Your task to perform on an android device: When is my next appointment? Image 0: 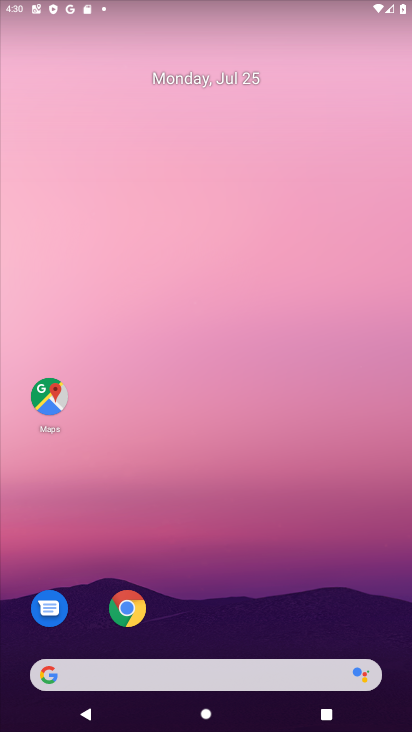
Step 0: drag from (217, 626) to (267, 72)
Your task to perform on an android device: When is my next appointment? Image 1: 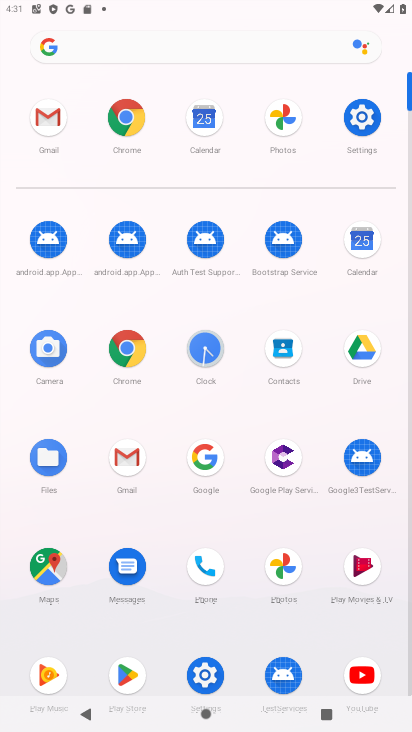
Step 1: click (360, 240)
Your task to perform on an android device: When is my next appointment? Image 2: 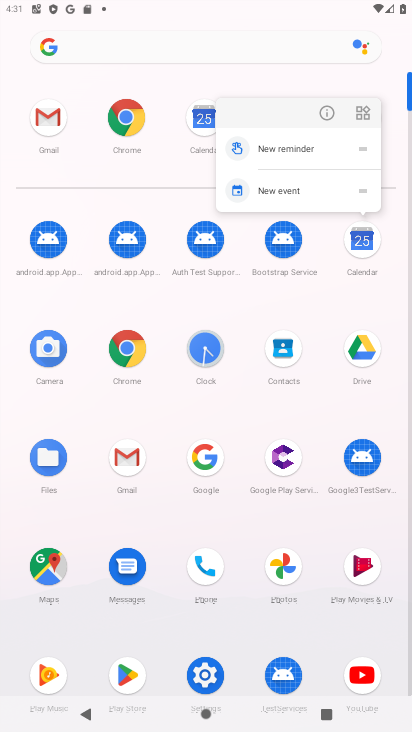
Step 2: click (360, 240)
Your task to perform on an android device: When is my next appointment? Image 3: 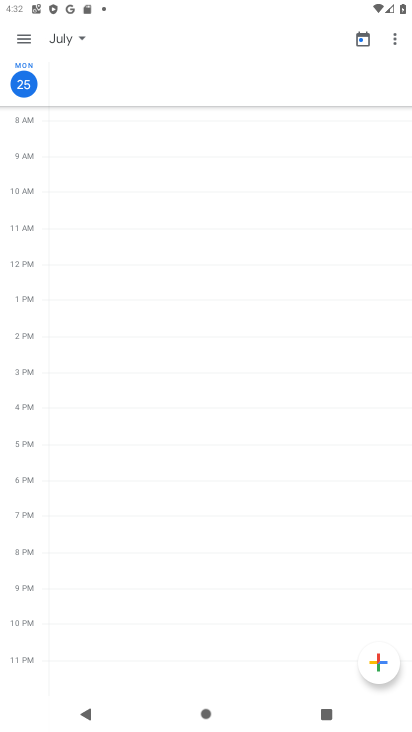
Step 3: click (42, 81)
Your task to perform on an android device: When is my next appointment? Image 4: 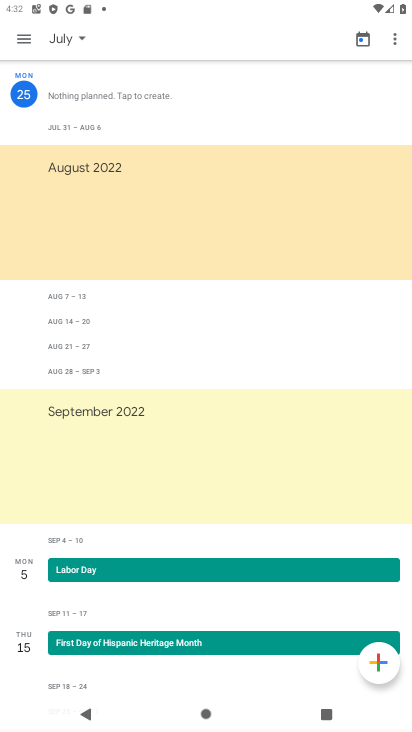
Step 4: task complete